Your task to perform on an android device: Is it going to rain this weekend? Image 0: 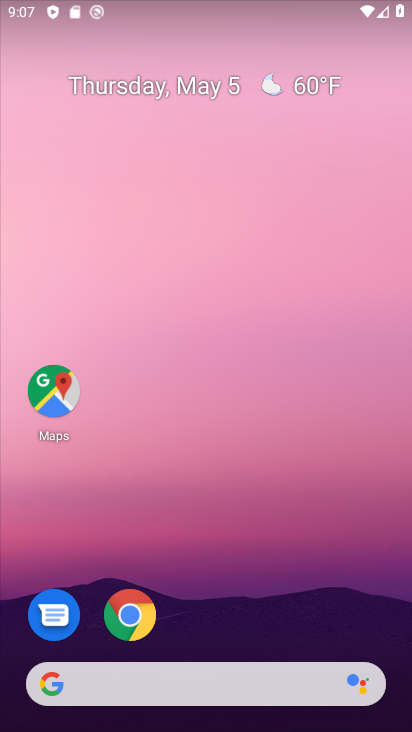
Step 0: drag from (254, 617) to (261, 144)
Your task to perform on an android device: Is it going to rain this weekend? Image 1: 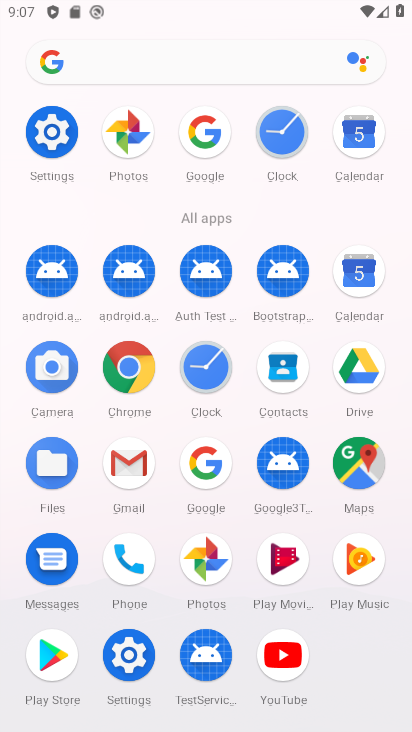
Step 1: click (203, 458)
Your task to perform on an android device: Is it going to rain this weekend? Image 2: 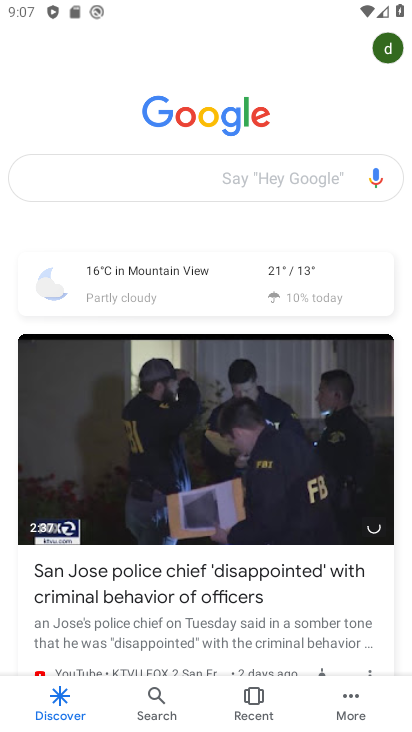
Step 2: click (170, 181)
Your task to perform on an android device: Is it going to rain this weekend? Image 3: 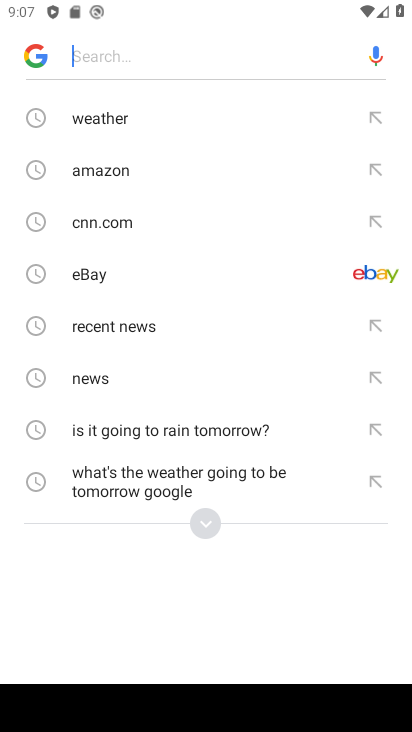
Step 3: type "is it going to rain this weekend"
Your task to perform on an android device: Is it going to rain this weekend? Image 4: 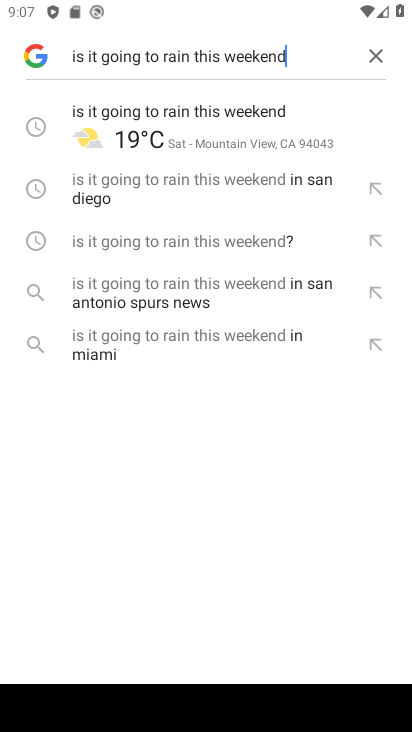
Step 4: click (250, 109)
Your task to perform on an android device: Is it going to rain this weekend? Image 5: 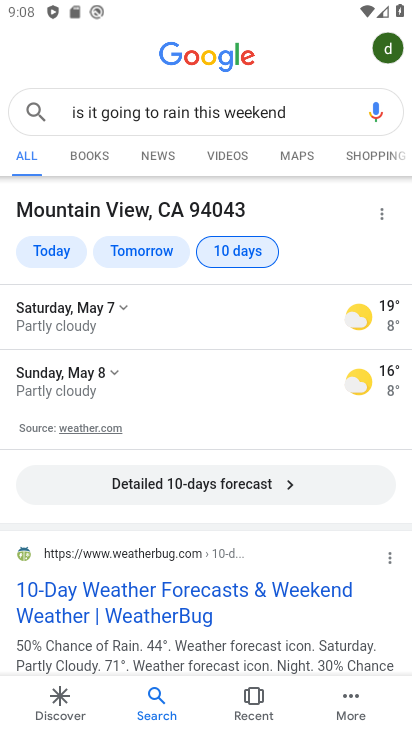
Step 5: task complete